Your task to perform on an android device: Open network settings Image 0: 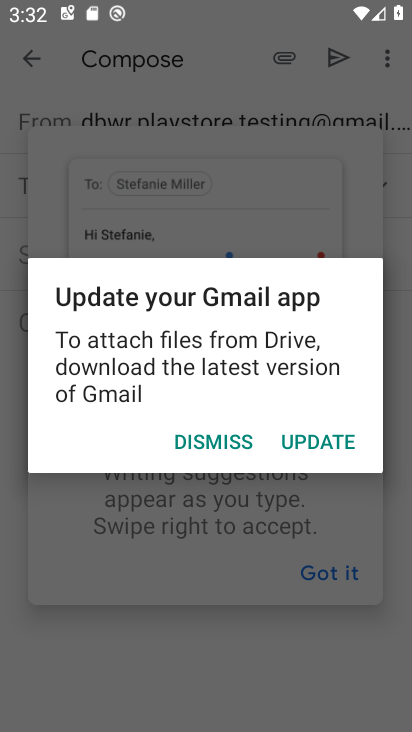
Step 0: press back button
Your task to perform on an android device: Open network settings Image 1: 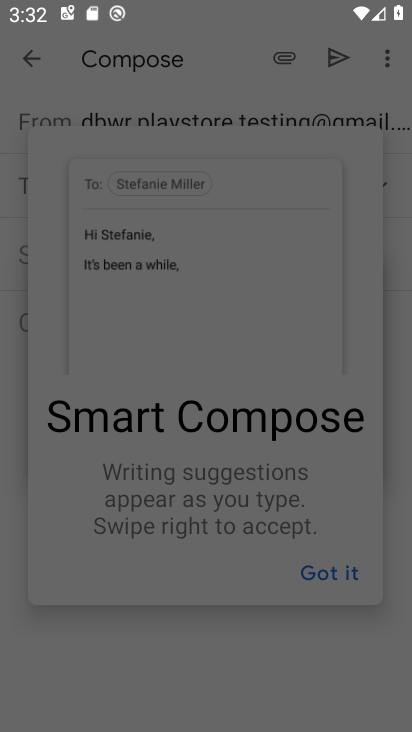
Step 1: press back button
Your task to perform on an android device: Open network settings Image 2: 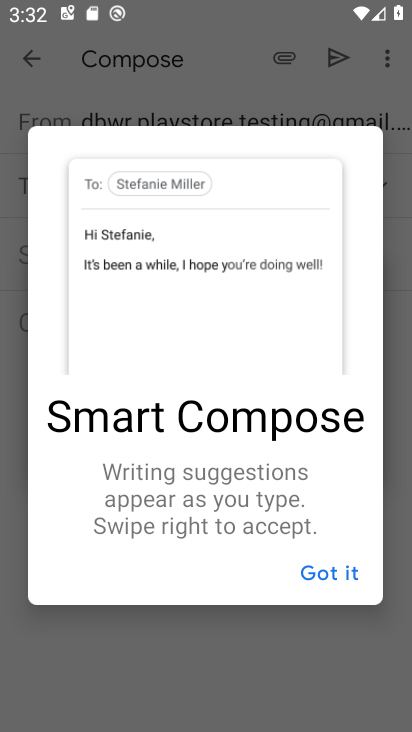
Step 2: press home button
Your task to perform on an android device: Open network settings Image 3: 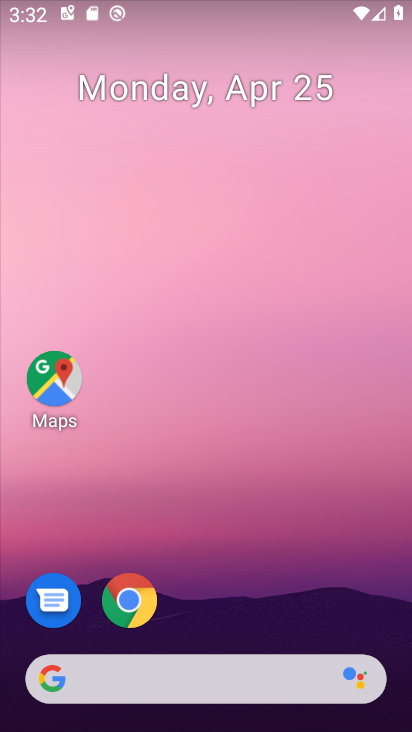
Step 3: drag from (309, 527) to (268, 0)
Your task to perform on an android device: Open network settings Image 4: 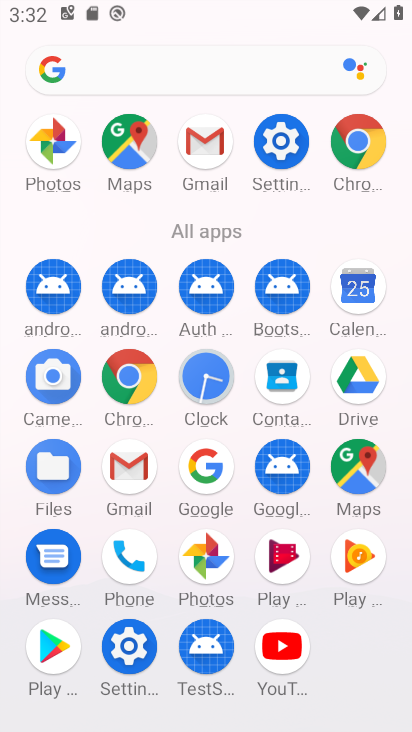
Step 4: click (280, 140)
Your task to perform on an android device: Open network settings Image 5: 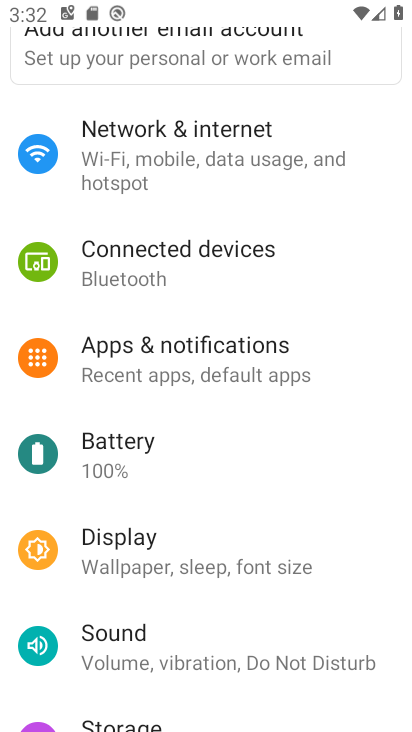
Step 5: drag from (297, 545) to (335, 119)
Your task to perform on an android device: Open network settings Image 6: 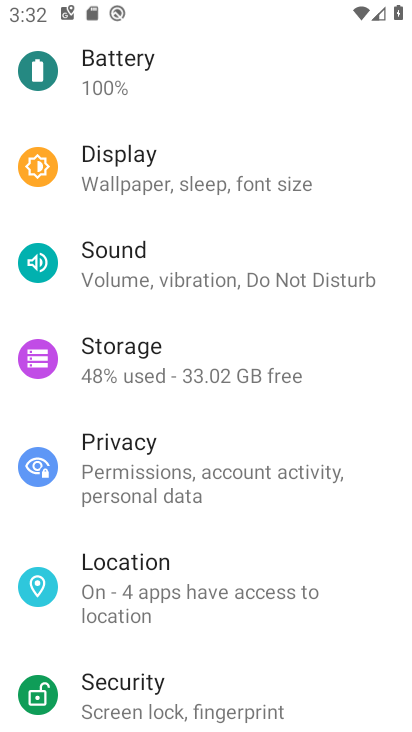
Step 6: drag from (318, 159) to (288, 451)
Your task to perform on an android device: Open network settings Image 7: 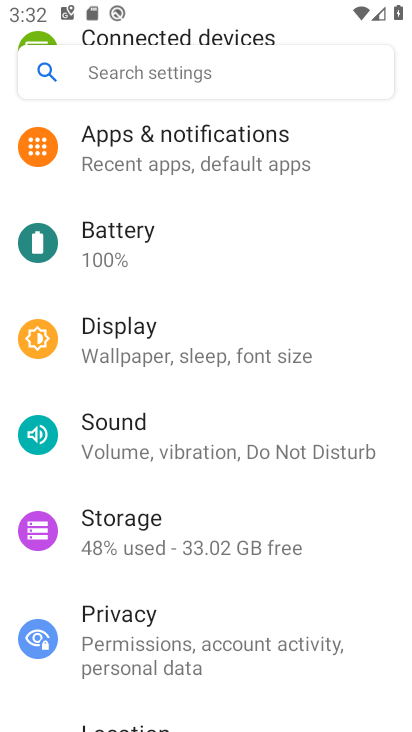
Step 7: drag from (307, 425) to (297, 492)
Your task to perform on an android device: Open network settings Image 8: 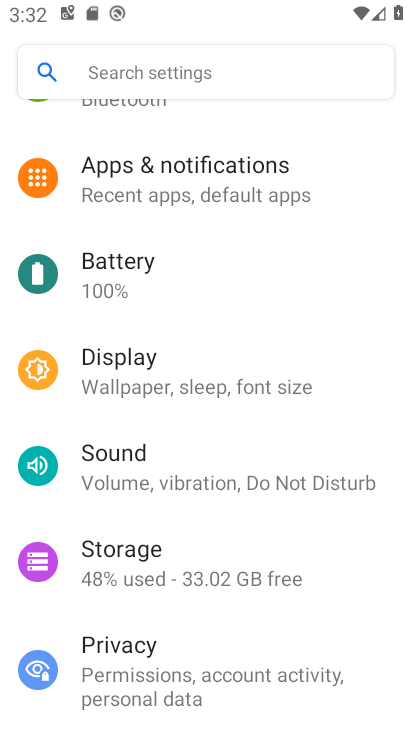
Step 8: drag from (296, 215) to (295, 514)
Your task to perform on an android device: Open network settings Image 9: 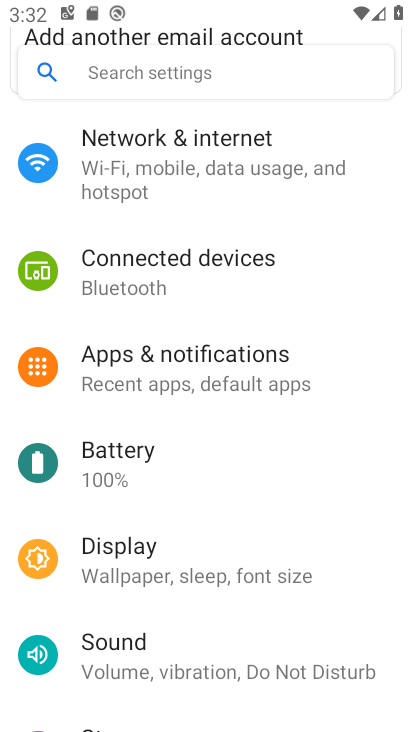
Step 9: click (254, 174)
Your task to perform on an android device: Open network settings Image 10: 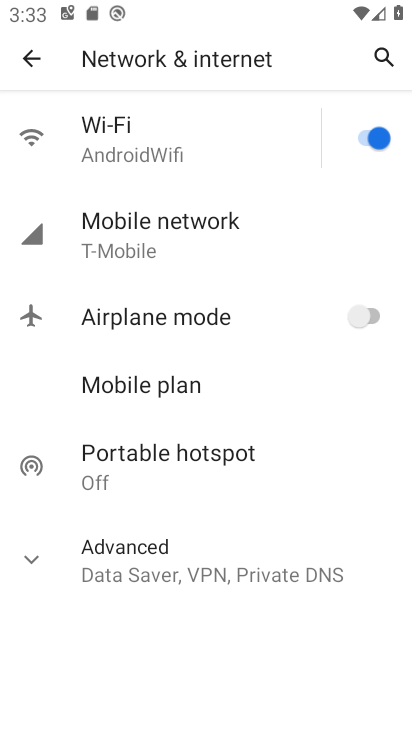
Step 10: task complete